Your task to perform on an android device: Open CNN.com Image 0: 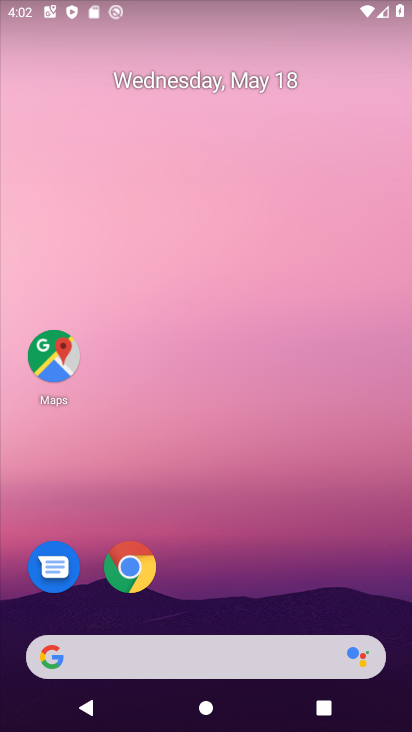
Step 0: click (118, 561)
Your task to perform on an android device: Open CNN.com Image 1: 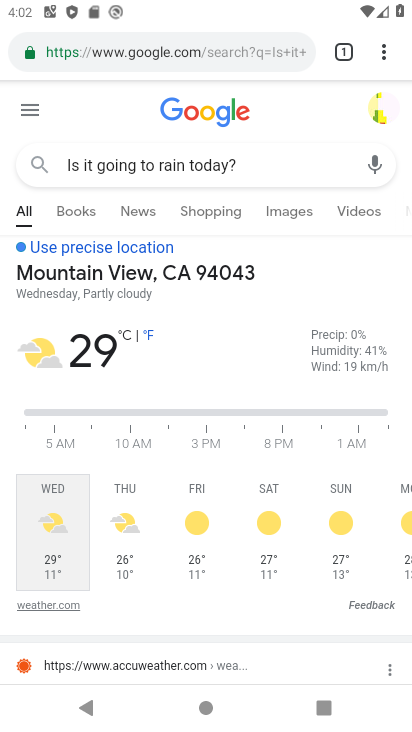
Step 1: click (215, 49)
Your task to perform on an android device: Open CNN.com Image 2: 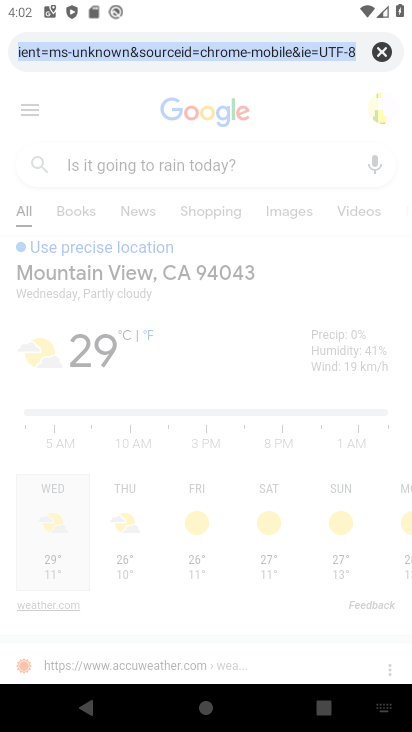
Step 2: click (386, 49)
Your task to perform on an android device: Open CNN.com Image 3: 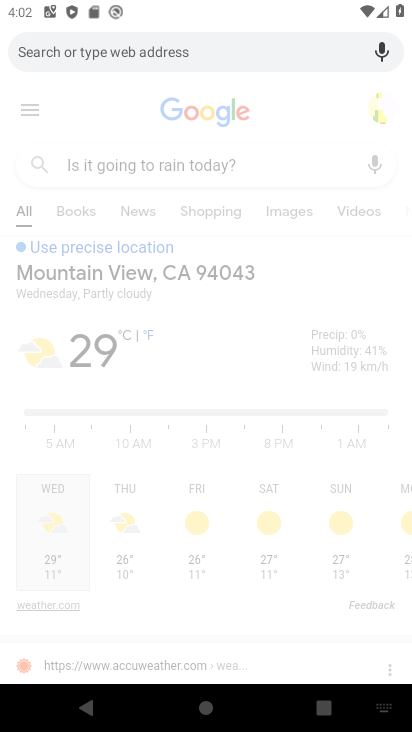
Step 3: type " CNN.com"
Your task to perform on an android device: Open CNN.com Image 4: 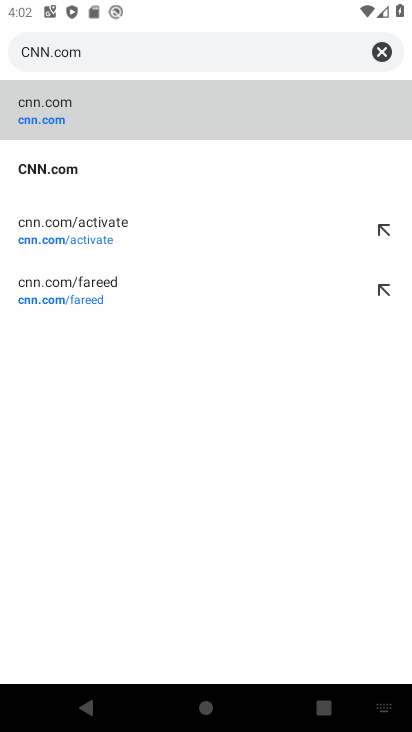
Step 4: click (32, 114)
Your task to perform on an android device: Open CNN.com Image 5: 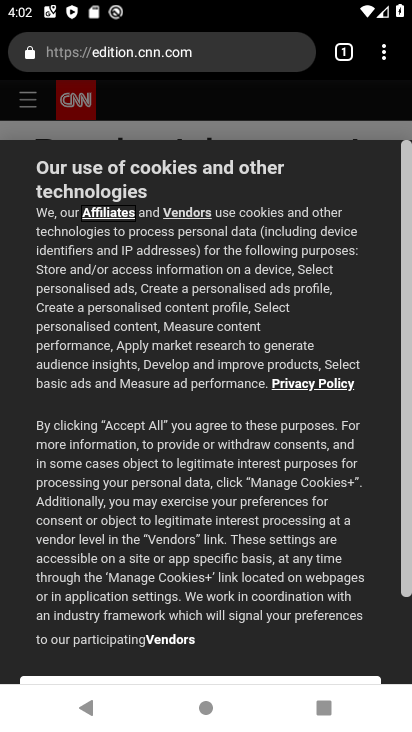
Step 5: task complete